Your task to perform on an android device: Go to ESPN.com Image 0: 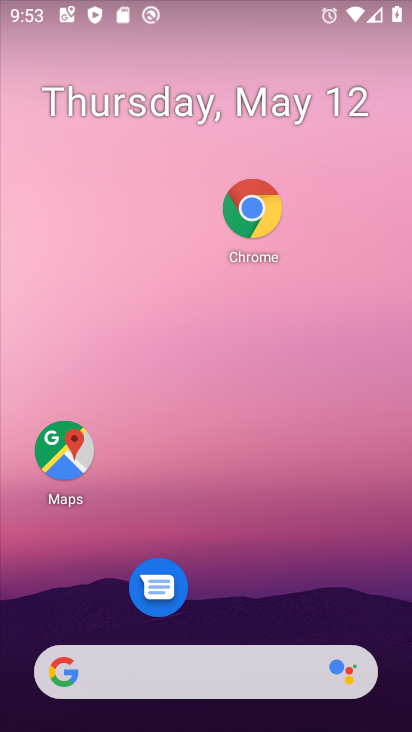
Step 0: drag from (280, 615) to (304, 163)
Your task to perform on an android device: Go to ESPN.com Image 1: 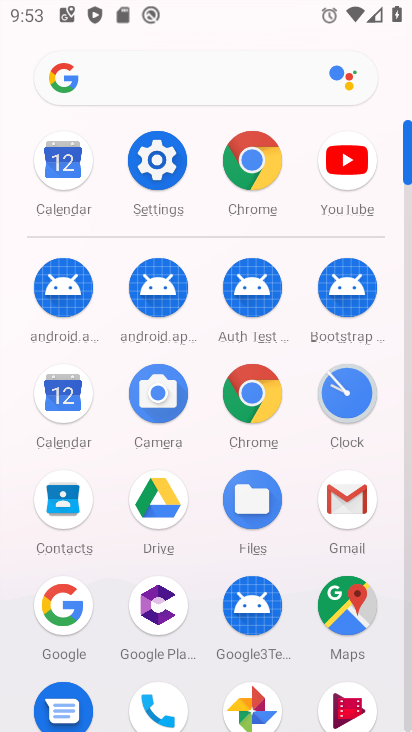
Step 1: click (243, 136)
Your task to perform on an android device: Go to ESPN.com Image 2: 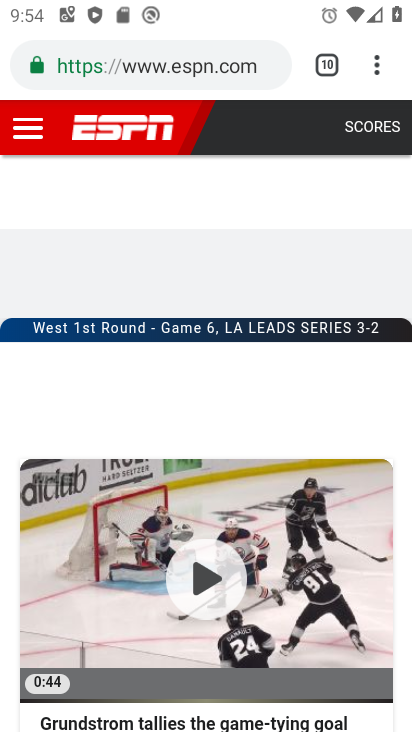
Step 2: task complete